Your task to perform on an android device: Open settings Image 0: 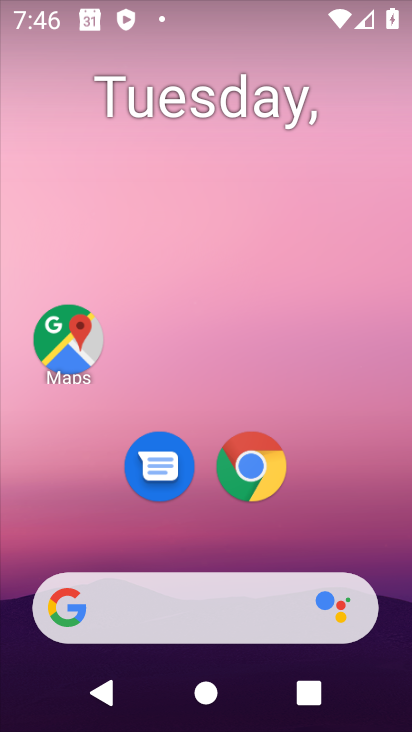
Step 0: drag from (9, 629) to (239, 222)
Your task to perform on an android device: Open settings Image 1: 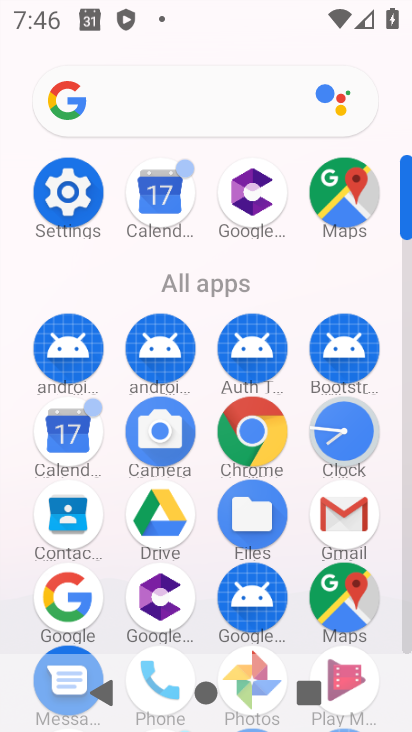
Step 1: click (53, 187)
Your task to perform on an android device: Open settings Image 2: 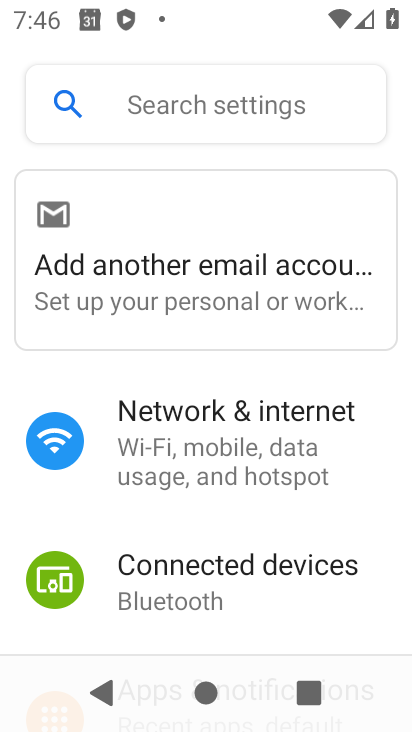
Step 2: task complete